Your task to perform on an android device: turn off notifications in google photos Image 0: 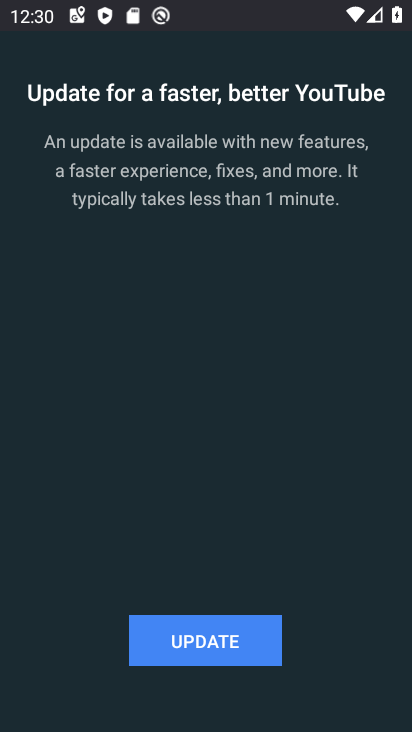
Step 0: press home button
Your task to perform on an android device: turn off notifications in google photos Image 1: 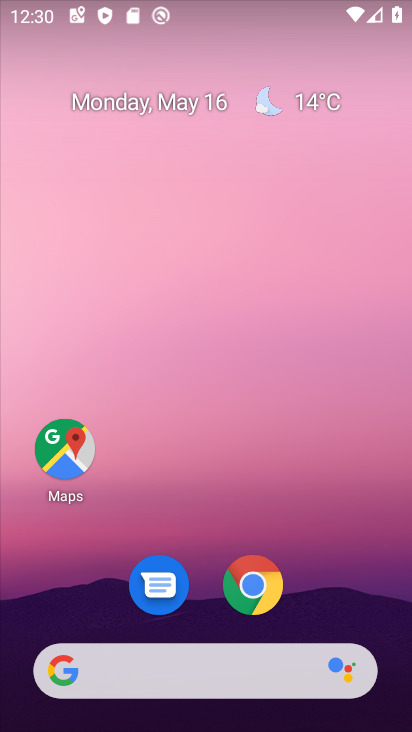
Step 1: drag from (322, 568) to (329, 52)
Your task to perform on an android device: turn off notifications in google photos Image 2: 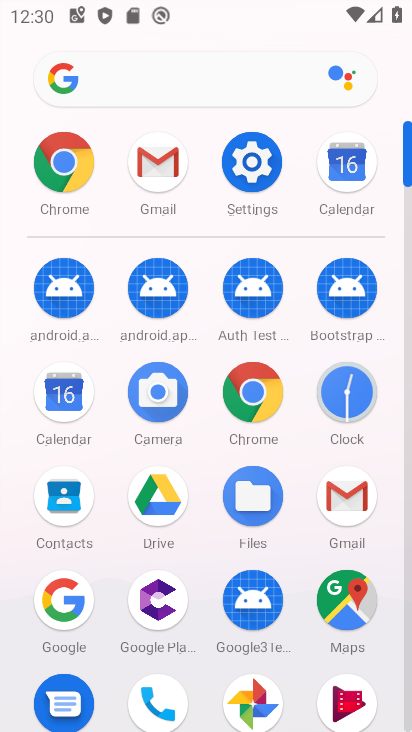
Step 2: click (269, 154)
Your task to perform on an android device: turn off notifications in google photos Image 3: 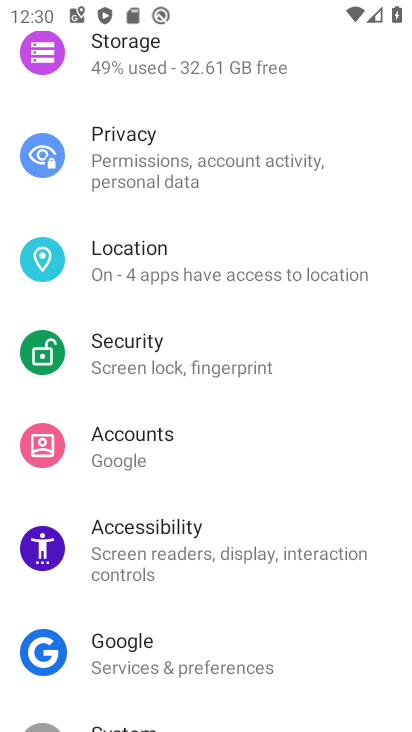
Step 3: drag from (245, 232) to (239, 730)
Your task to perform on an android device: turn off notifications in google photos Image 4: 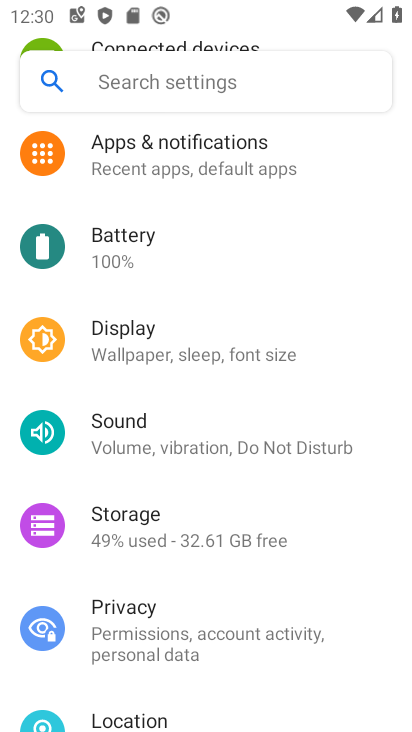
Step 4: click (244, 153)
Your task to perform on an android device: turn off notifications in google photos Image 5: 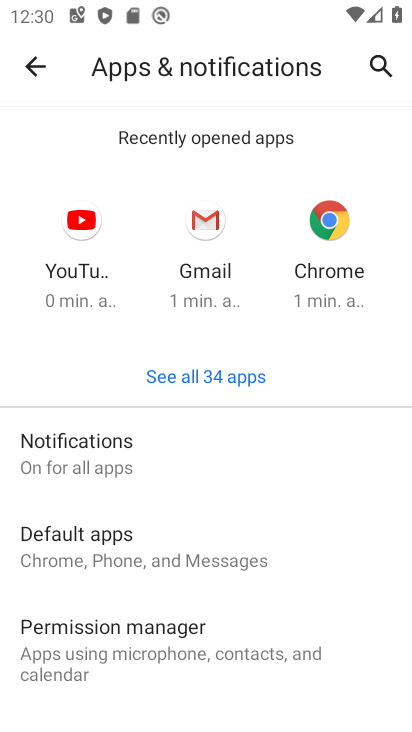
Step 5: click (232, 369)
Your task to perform on an android device: turn off notifications in google photos Image 6: 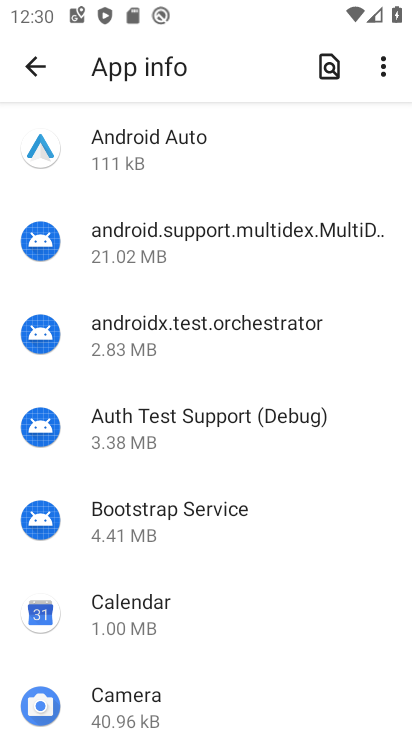
Step 6: drag from (254, 684) to (268, 15)
Your task to perform on an android device: turn off notifications in google photos Image 7: 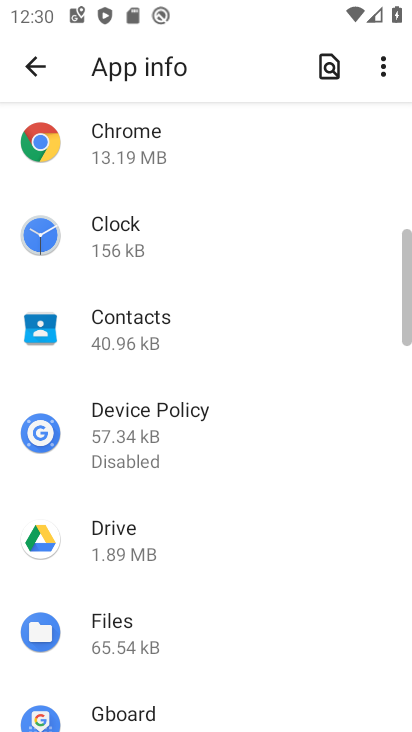
Step 7: drag from (208, 710) to (253, 16)
Your task to perform on an android device: turn off notifications in google photos Image 8: 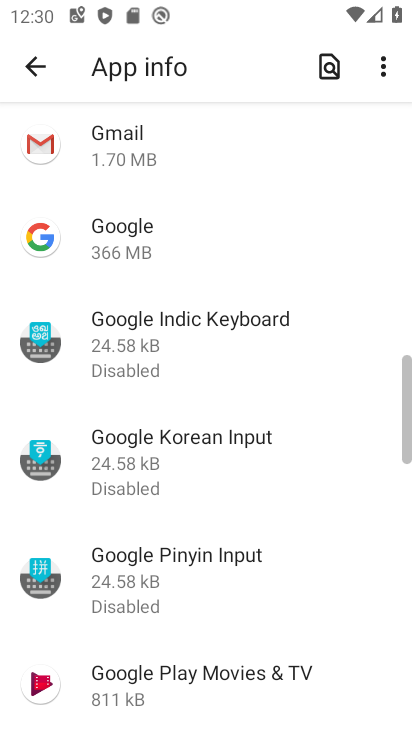
Step 8: drag from (186, 623) to (207, 115)
Your task to perform on an android device: turn off notifications in google photos Image 9: 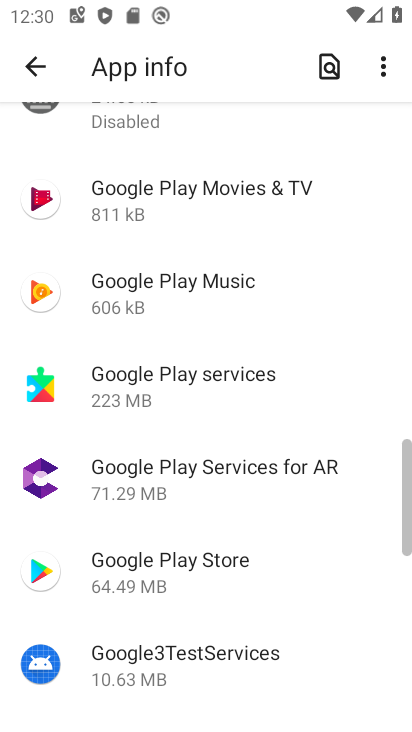
Step 9: drag from (211, 698) to (254, 104)
Your task to perform on an android device: turn off notifications in google photos Image 10: 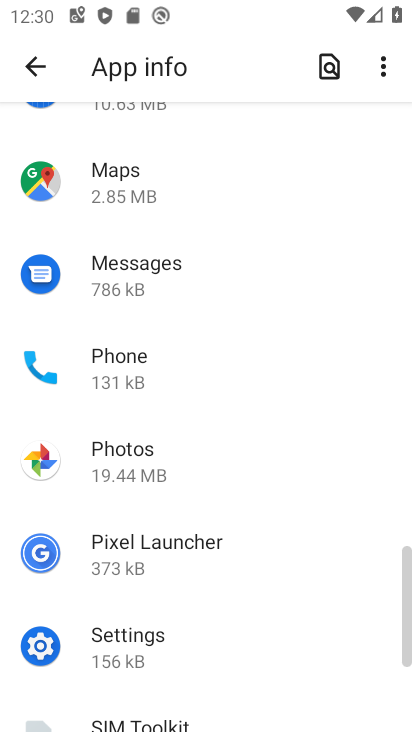
Step 10: click (168, 472)
Your task to perform on an android device: turn off notifications in google photos Image 11: 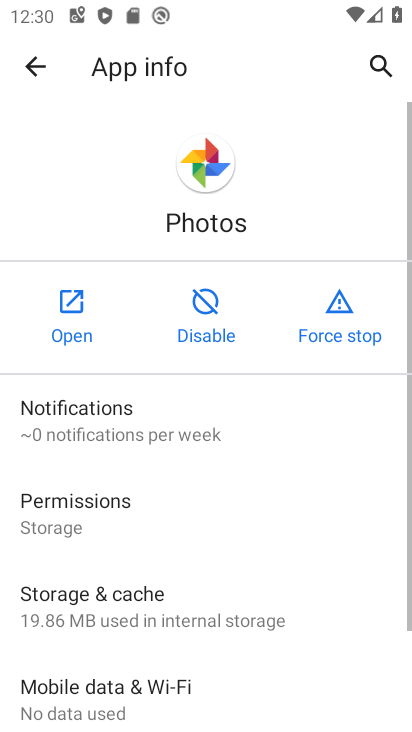
Step 11: click (150, 418)
Your task to perform on an android device: turn off notifications in google photos Image 12: 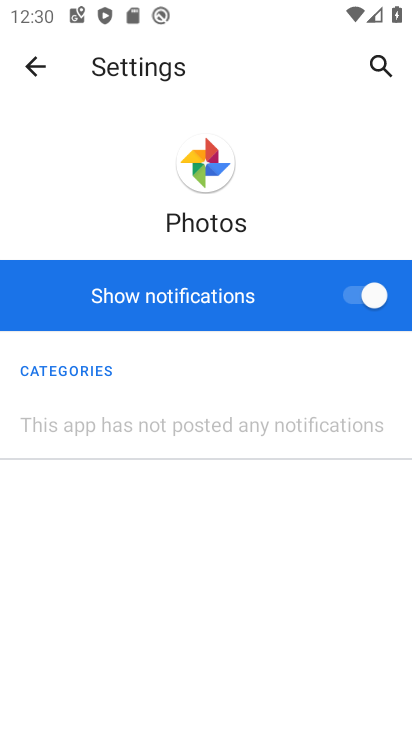
Step 12: click (367, 296)
Your task to perform on an android device: turn off notifications in google photos Image 13: 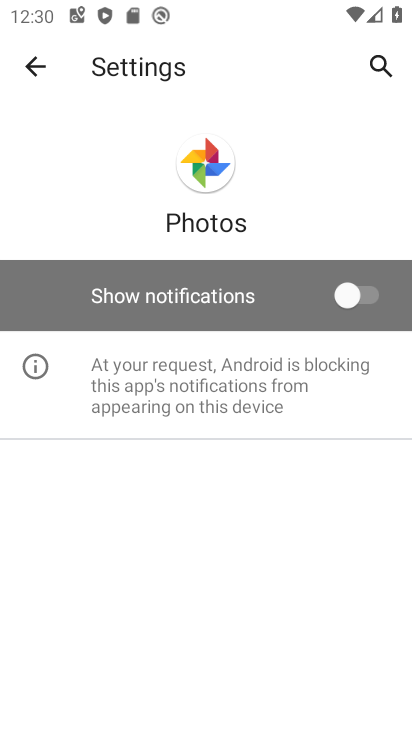
Step 13: task complete